Your task to perform on an android device: turn pop-ups off in chrome Image 0: 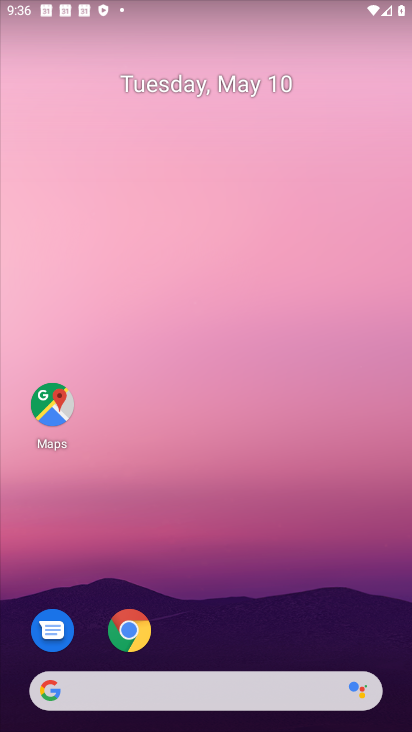
Step 0: click (121, 637)
Your task to perform on an android device: turn pop-ups off in chrome Image 1: 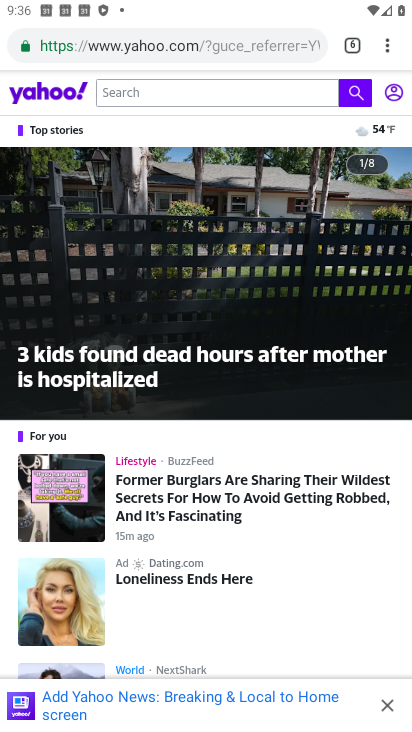
Step 1: click (383, 48)
Your task to perform on an android device: turn pop-ups off in chrome Image 2: 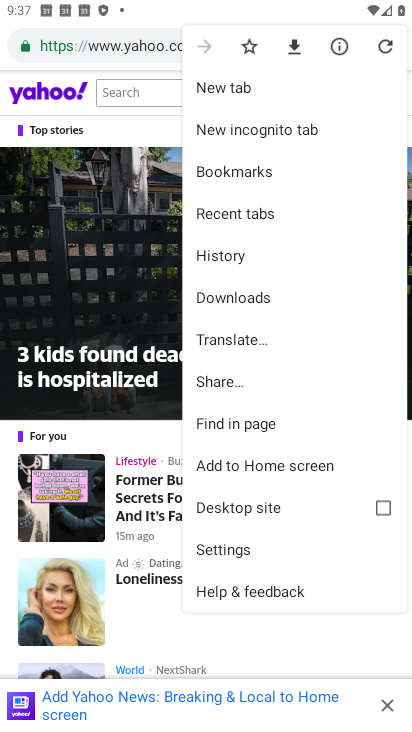
Step 2: click (265, 548)
Your task to perform on an android device: turn pop-ups off in chrome Image 3: 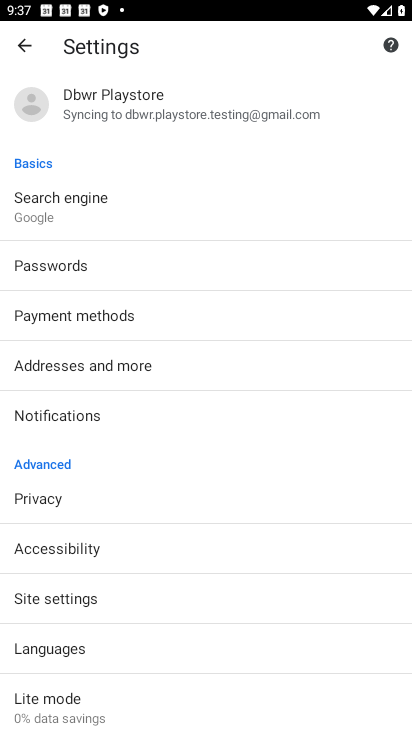
Step 3: click (59, 595)
Your task to perform on an android device: turn pop-ups off in chrome Image 4: 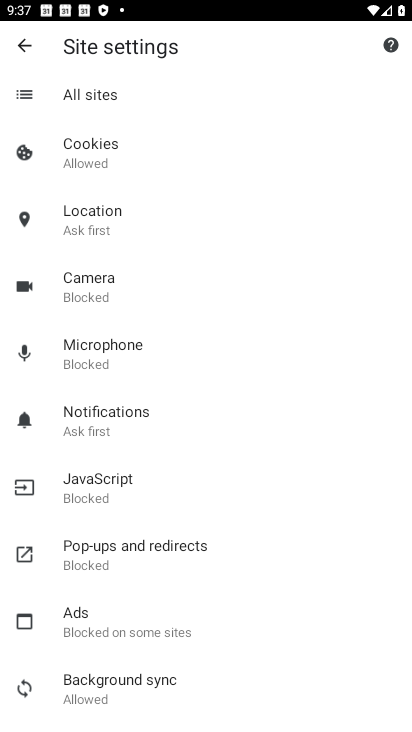
Step 4: click (157, 540)
Your task to perform on an android device: turn pop-ups off in chrome Image 5: 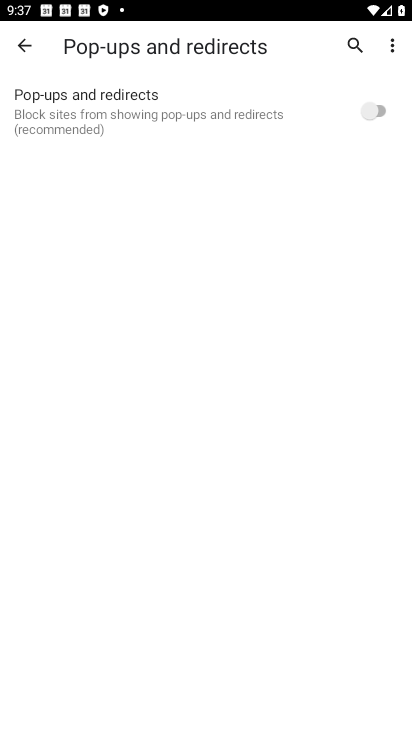
Step 5: task complete